Your task to perform on an android device: Search for "usb-a" on bestbuy, select the first entry, and add it to the cart. Image 0: 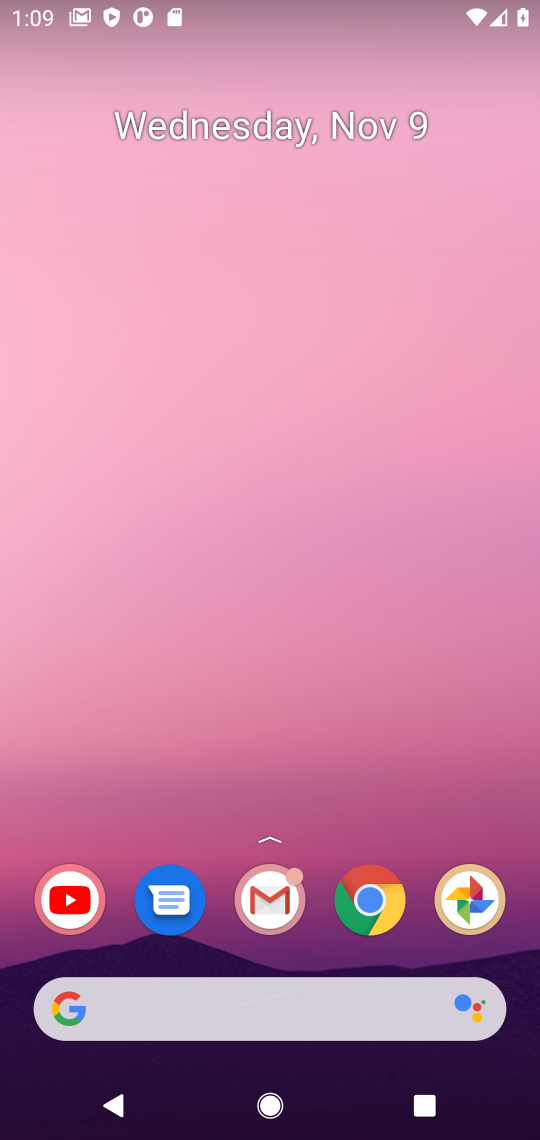
Step 0: click (379, 916)
Your task to perform on an android device: Search for "usb-a" on bestbuy, select the first entry, and add it to the cart. Image 1: 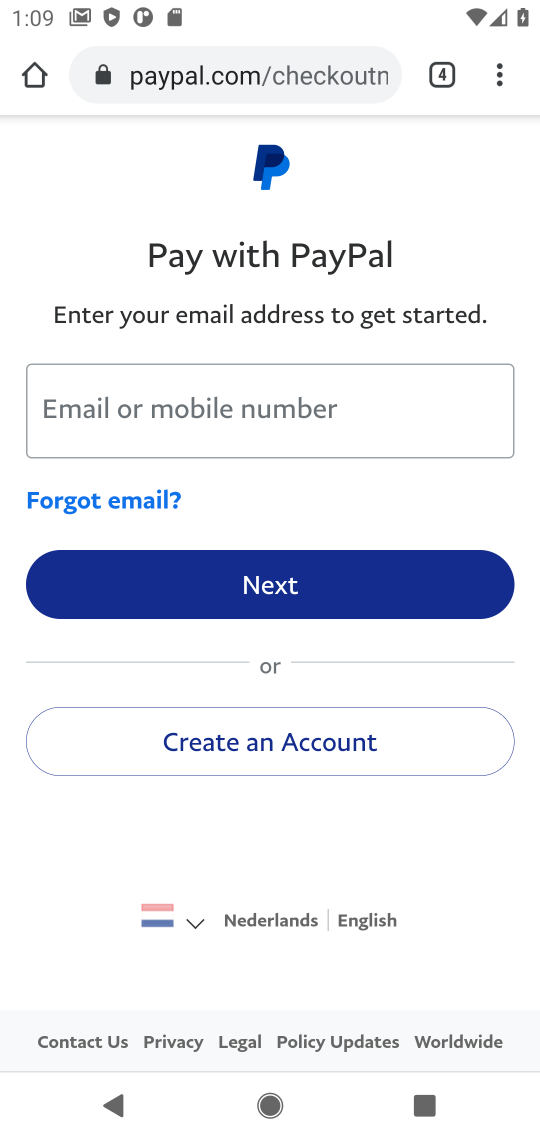
Step 1: click (438, 66)
Your task to perform on an android device: Search for "usb-a" on bestbuy, select the first entry, and add it to the cart. Image 2: 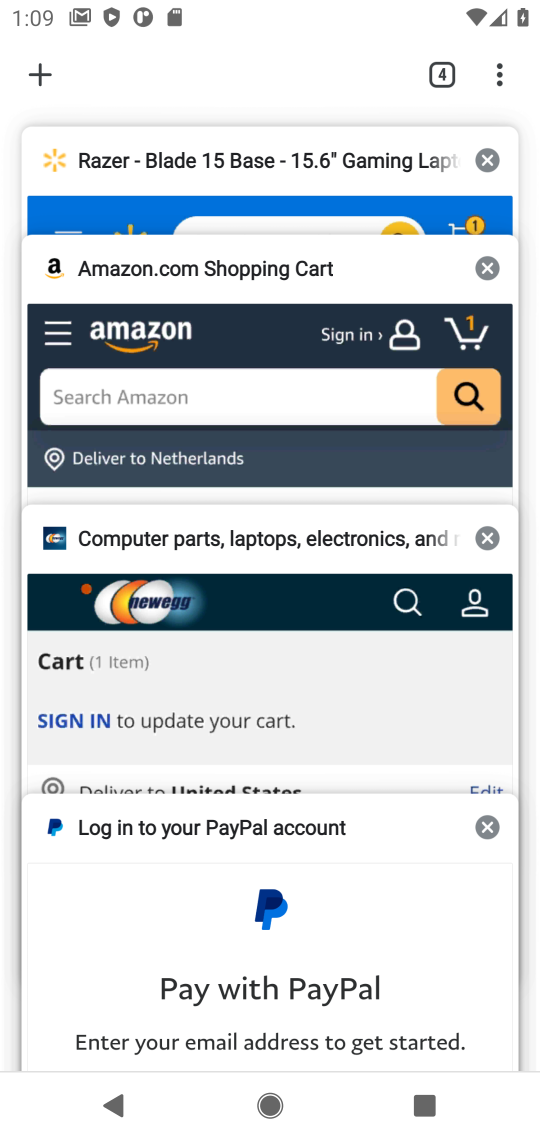
Step 2: click (40, 75)
Your task to perform on an android device: Search for "usb-a" on bestbuy, select the first entry, and add it to the cart. Image 3: 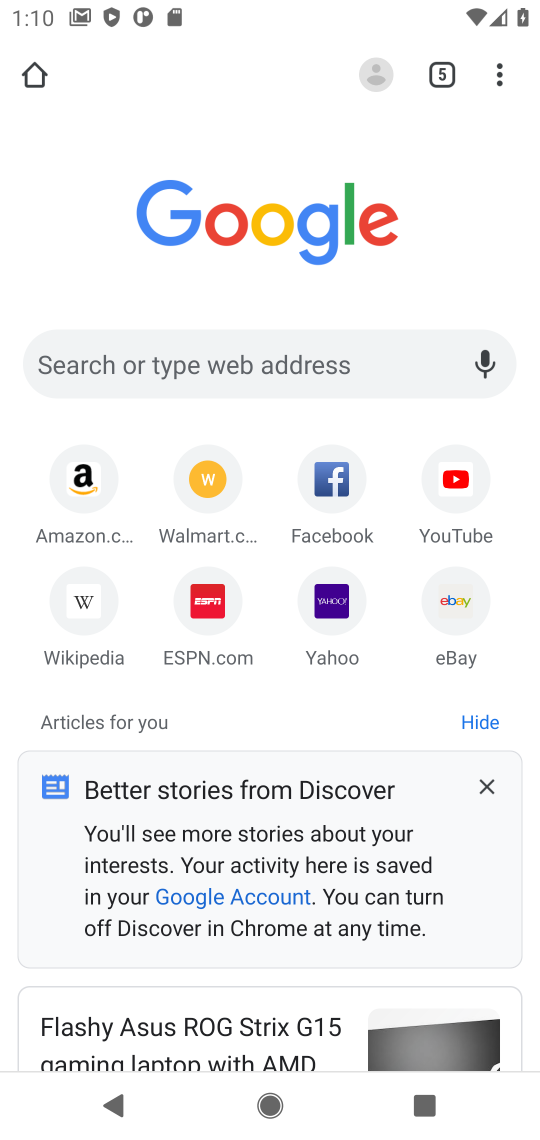
Step 3: click (243, 347)
Your task to perform on an android device: Search for "usb-a" on bestbuy, select the first entry, and add it to the cart. Image 4: 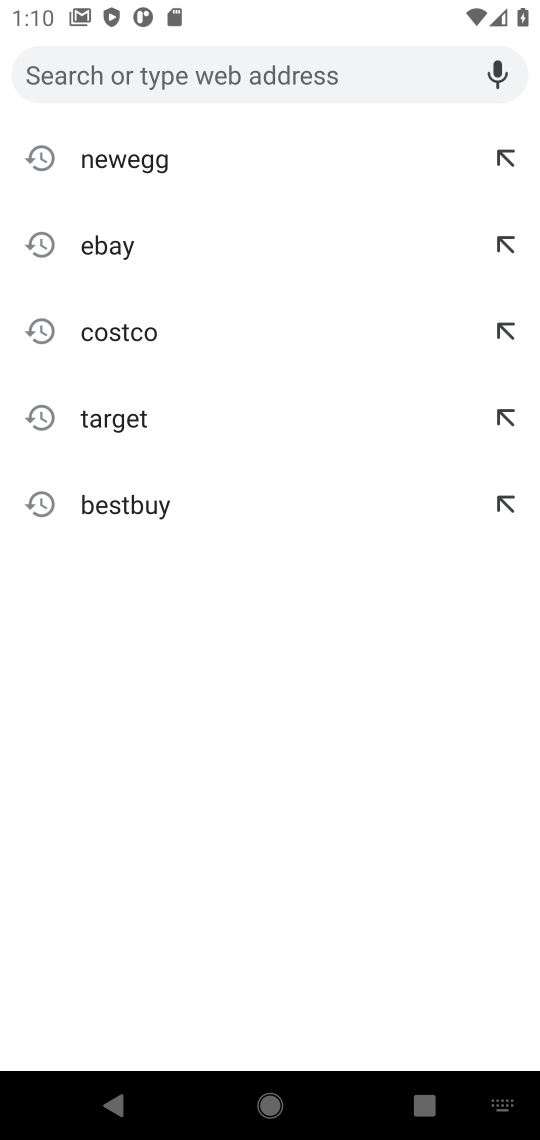
Step 4: click (116, 503)
Your task to perform on an android device: Search for "usb-a" on bestbuy, select the first entry, and add it to the cart. Image 5: 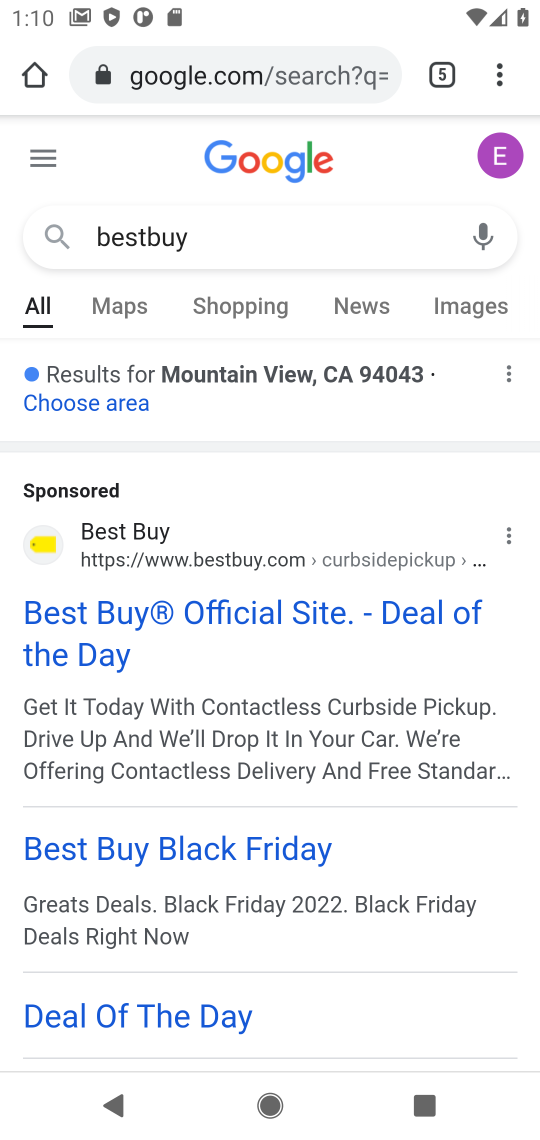
Step 5: click (302, 614)
Your task to perform on an android device: Search for "usb-a" on bestbuy, select the first entry, and add it to the cart. Image 6: 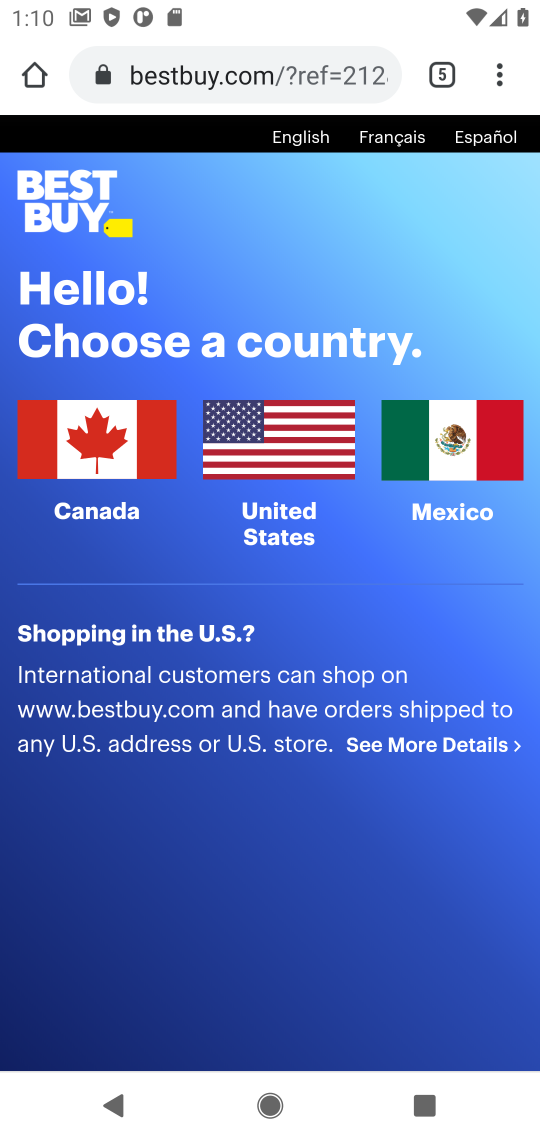
Step 6: click (307, 457)
Your task to perform on an android device: Search for "usb-a" on bestbuy, select the first entry, and add it to the cart. Image 7: 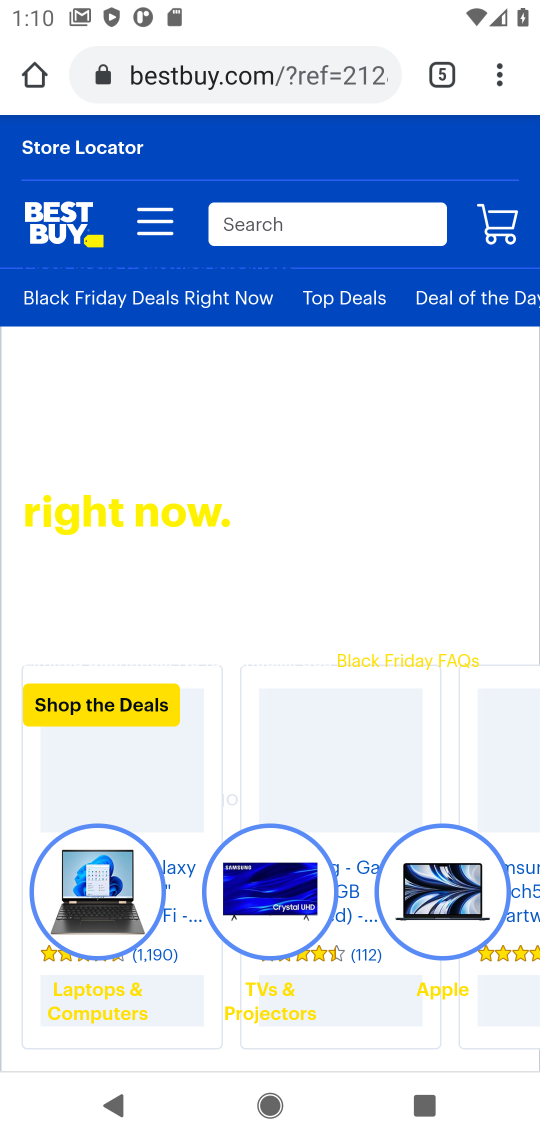
Step 7: click (296, 221)
Your task to perform on an android device: Search for "usb-a" on bestbuy, select the first entry, and add it to the cart. Image 8: 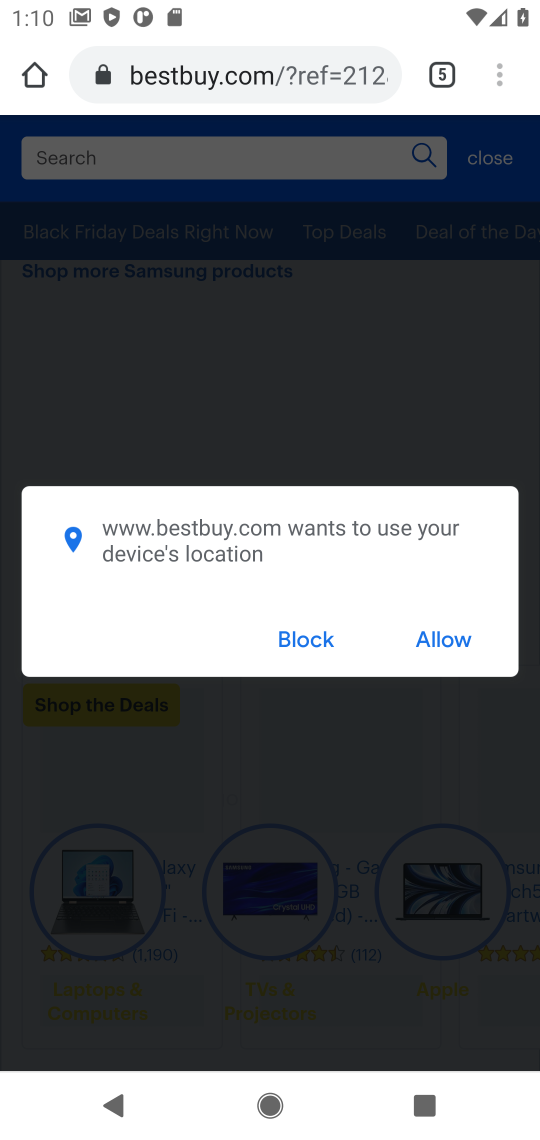
Step 8: type "usb-a"
Your task to perform on an android device: Search for "usb-a" on bestbuy, select the first entry, and add it to the cart. Image 9: 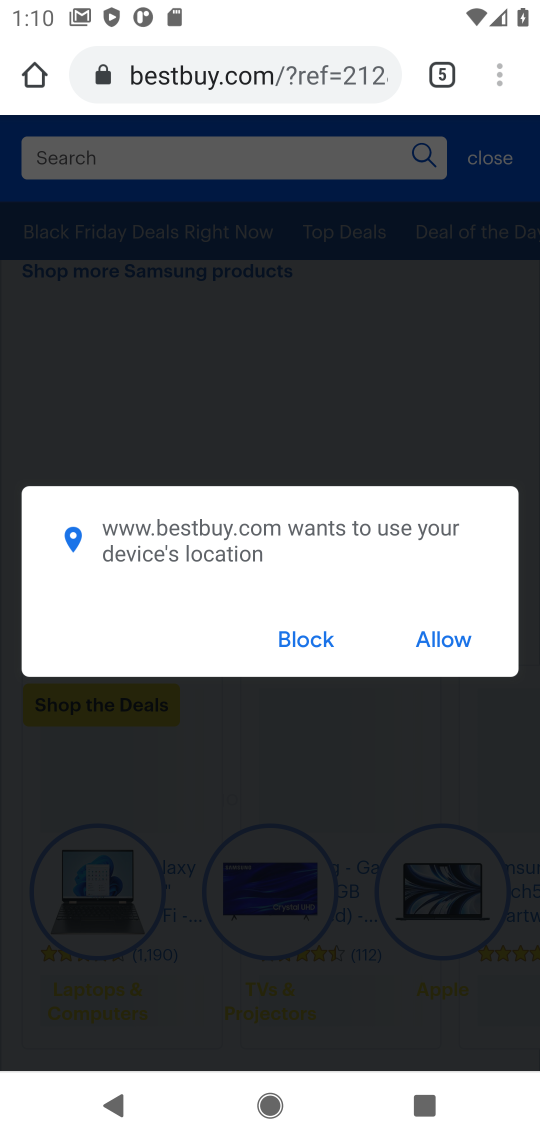
Step 9: click (280, 635)
Your task to perform on an android device: Search for "usb-a" on bestbuy, select the first entry, and add it to the cart. Image 10: 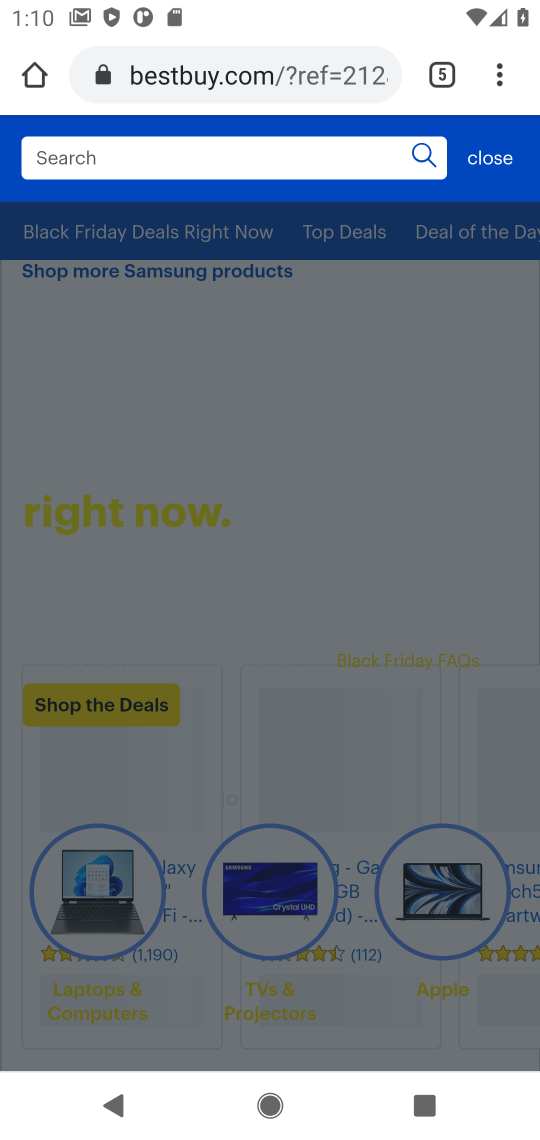
Step 10: click (318, 642)
Your task to perform on an android device: Search for "usb-a" on bestbuy, select the first entry, and add it to the cart. Image 11: 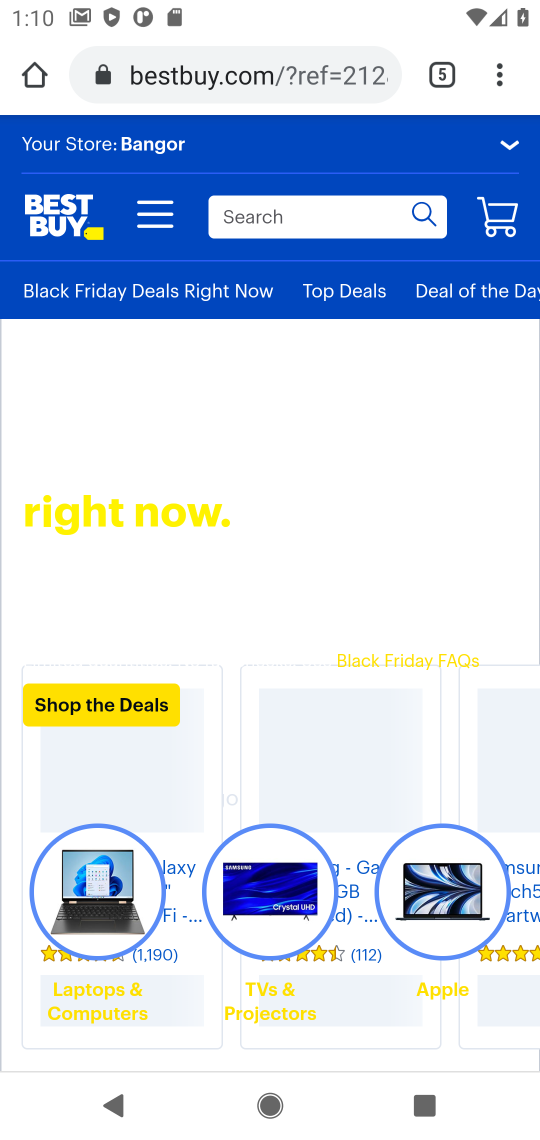
Step 11: click (360, 207)
Your task to perform on an android device: Search for "usb-a" on bestbuy, select the first entry, and add it to the cart. Image 12: 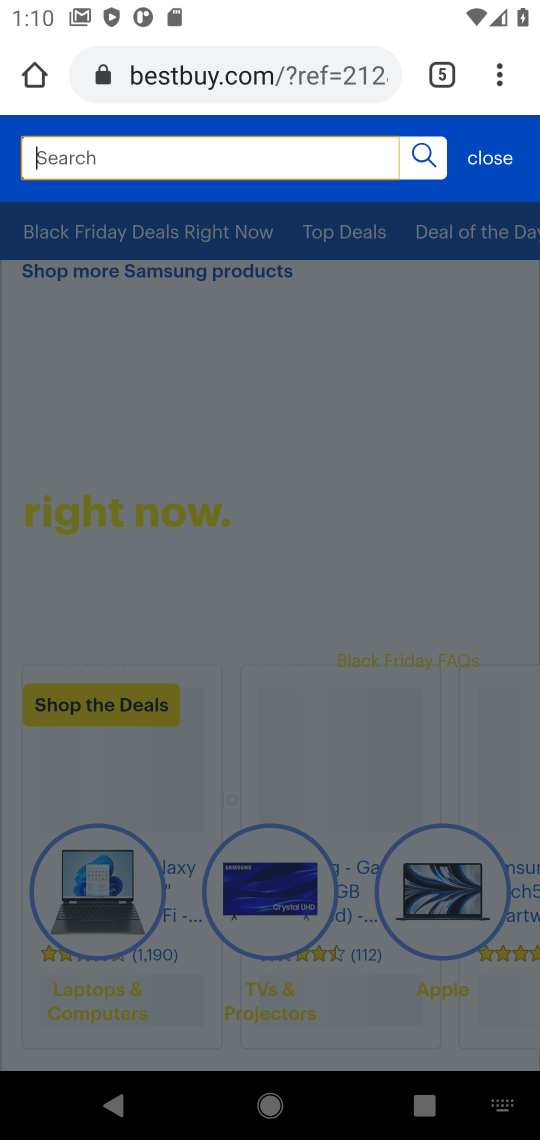
Step 12: type "usb-a"
Your task to perform on an android device: Search for "usb-a" on bestbuy, select the first entry, and add it to the cart. Image 13: 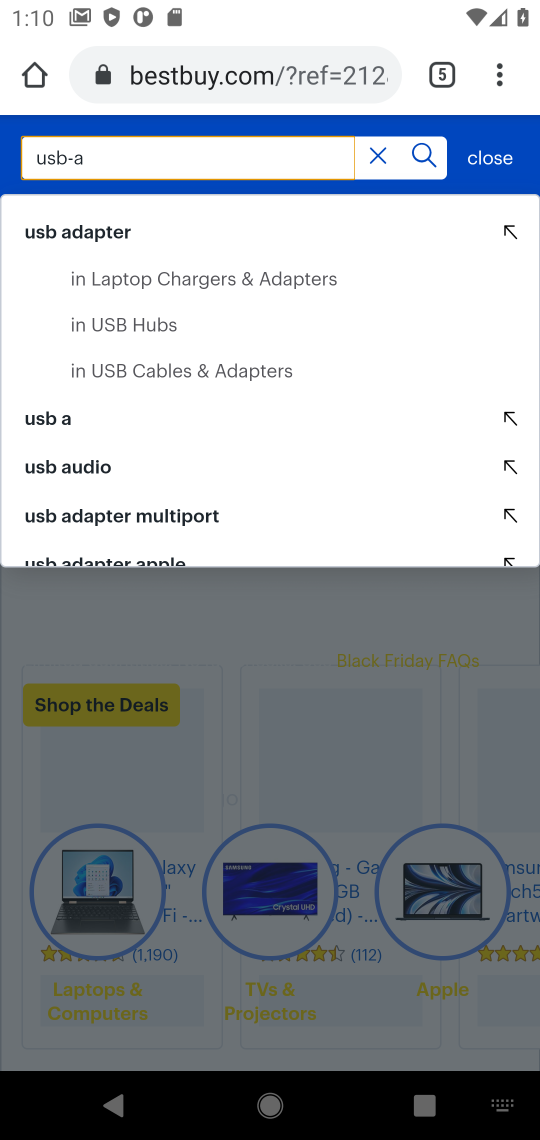
Step 13: click (56, 416)
Your task to perform on an android device: Search for "usb-a" on bestbuy, select the first entry, and add it to the cart. Image 14: 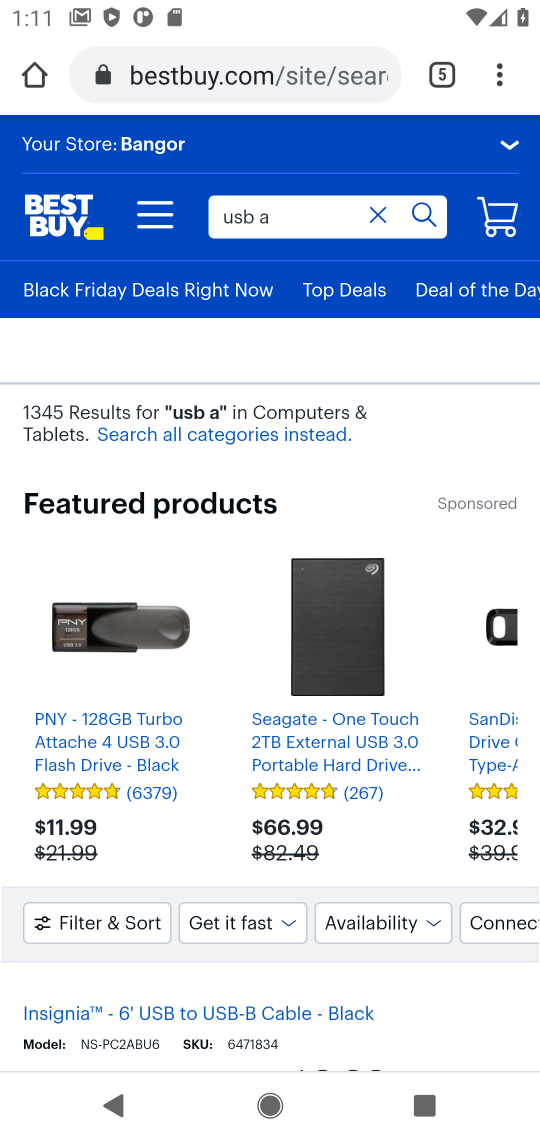
Step 14: drag from (437, 1025) to (475, 737)
Your task to perform on an android device: Search for "usb-a" on bestbuy, select the first entry, and add it to the cart. Image 15: 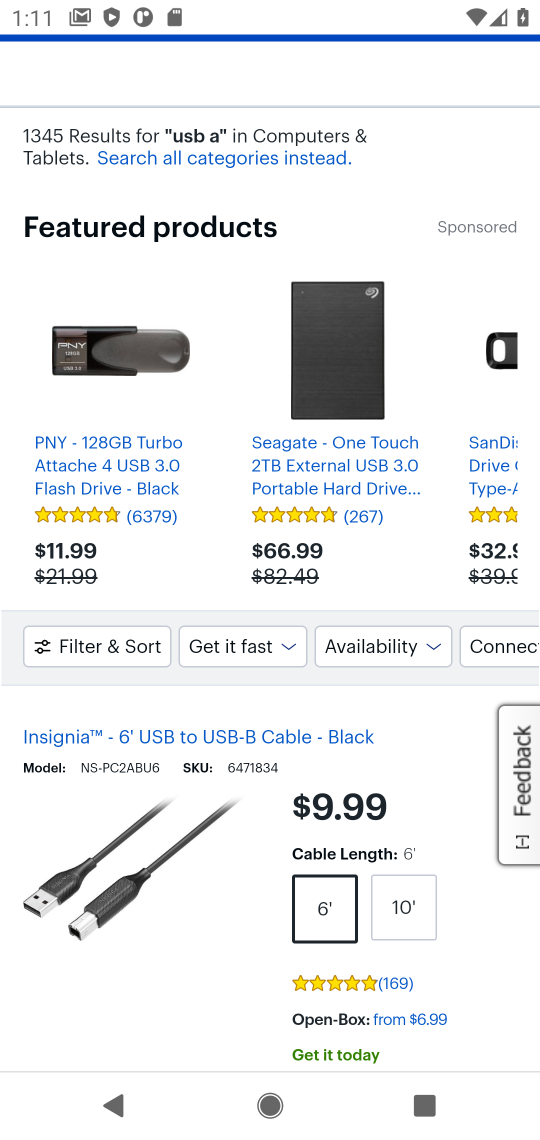
Step 15: drag from (490, 1029) to (474, 947)
Your task to perform on an android device: Search for "usb-a" on bestbuy, select the first entry, and add it to the cart. Image 16: 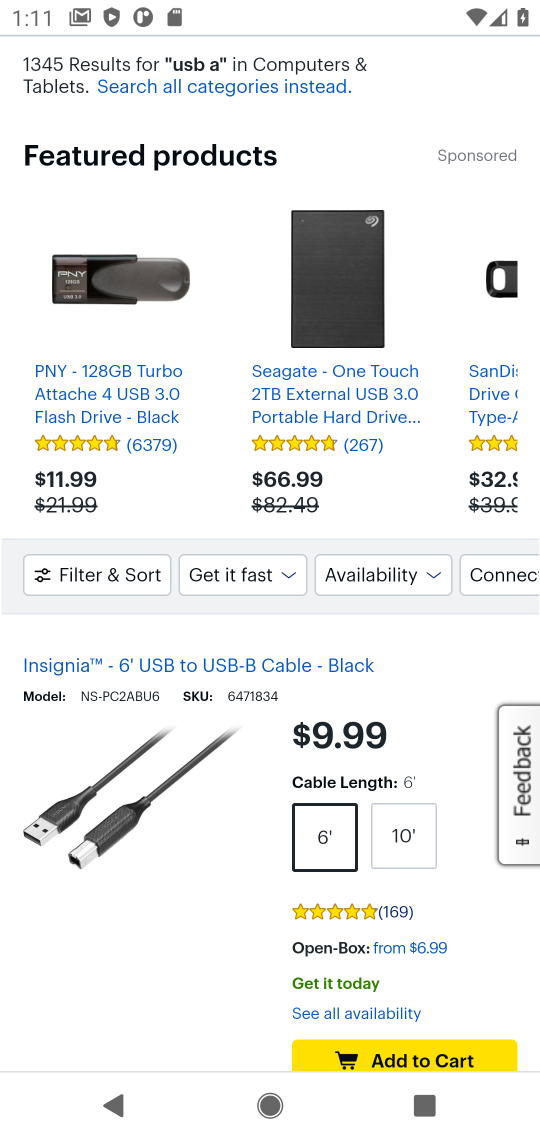
Step 16: click (446, 1049)
Your task to perform on an android device: Search for "usb-a" on bestbuy, select the first entry, and add it to the cart. Image 17: 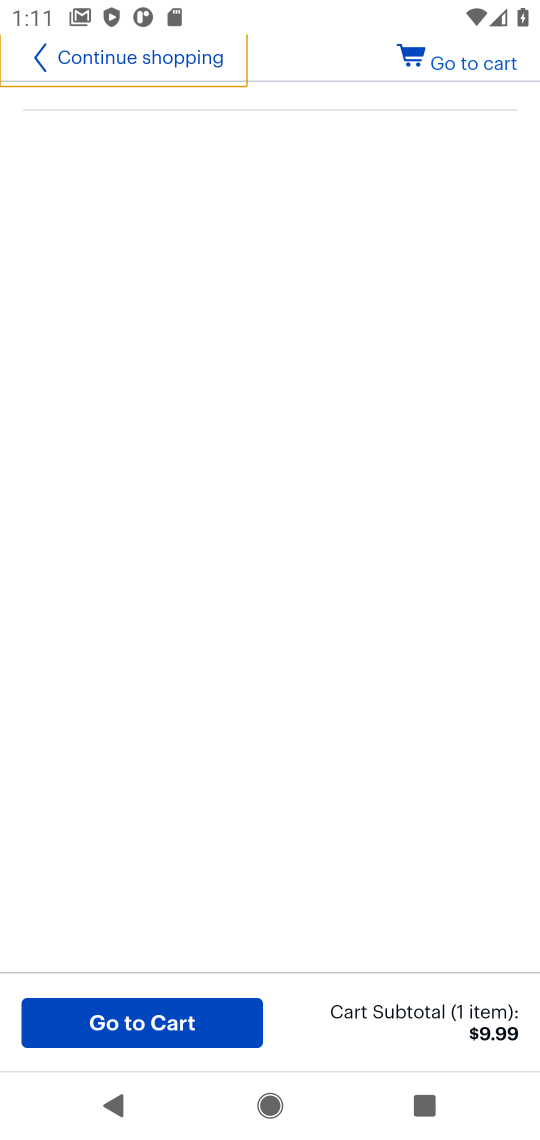
Step 17: task complete